Your task to perform on an android device: toggle notifications settings in the gmail app Image 0: 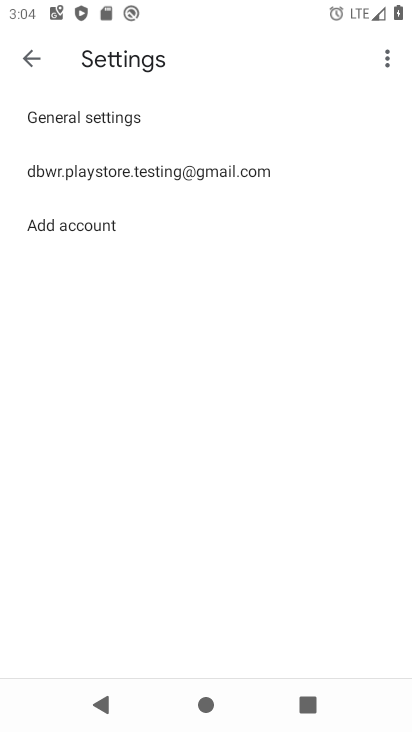
Step 0: press home button
Your task to perform on an android device: toggle notifications settings in the gmail app Image 1: 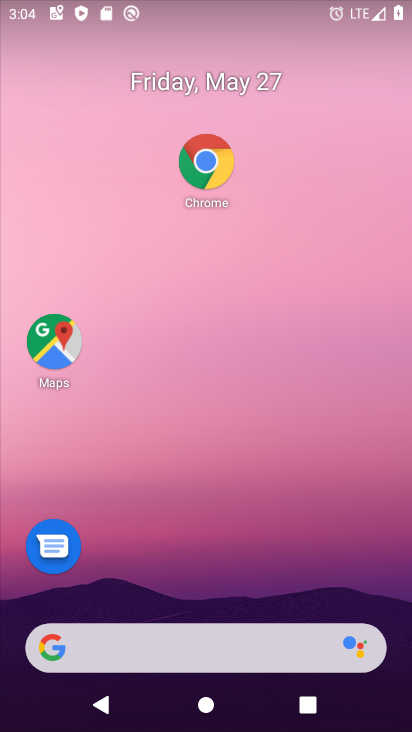
Step 1: drag from (162, 582) to (248, 148)
Your task to perform on an android device: toggle notifications settings in the gmail app Image 2: 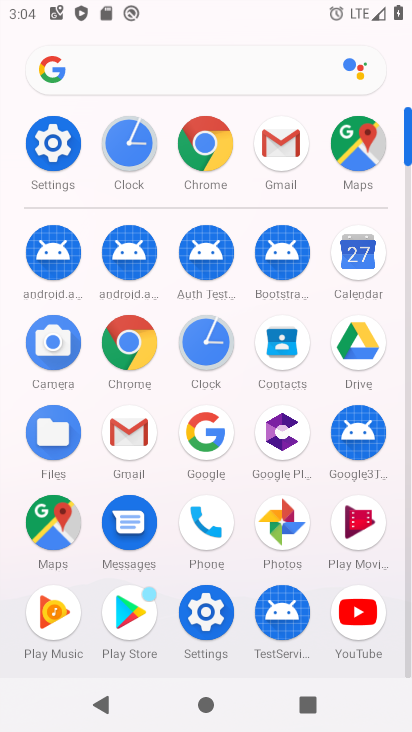
Step 2: click (274, 143)
Your task to perform on an android device: toggle notifications settings in the gmail app Image 3: 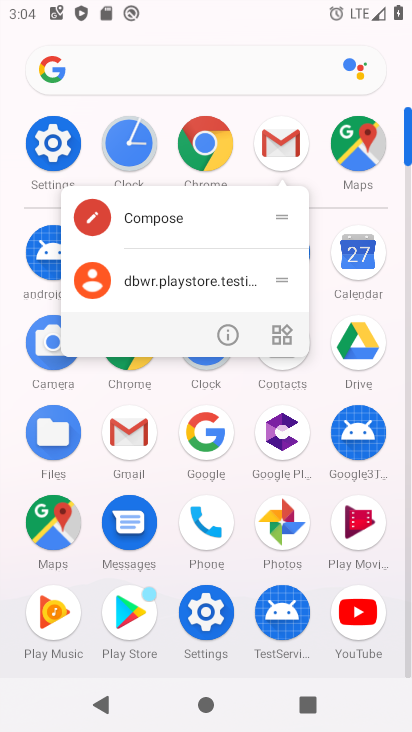
Step 3: click (281, 149)
Your task to perform on an android device: toggle notifications settings in the gmail app Image 4: 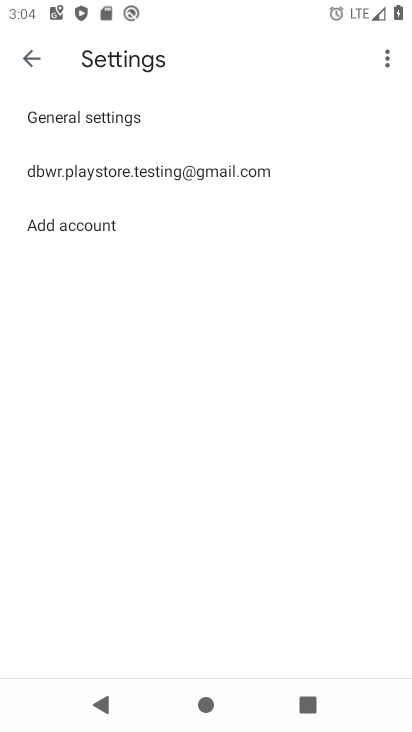
Step 4: click (143, 181)
Your task to perform on an android device: toggle notifications settings in the gmail app Image 5: 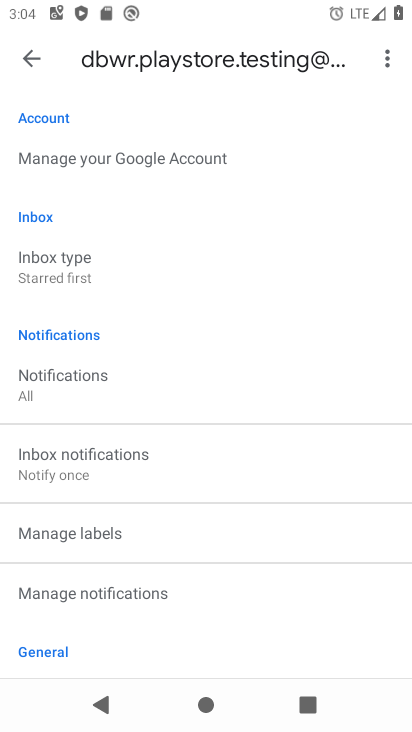
Step 5: click (96, 594)
Your task to perform on an android device: toggle notifications settings in the gmail app Image 6: 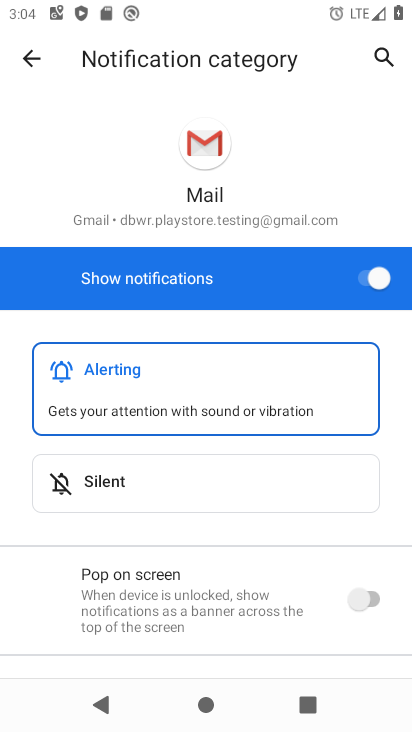
Step 6: click (374, 272)
Your task to perform on an android device: toggle notifications settings in the gmail app Image 7: 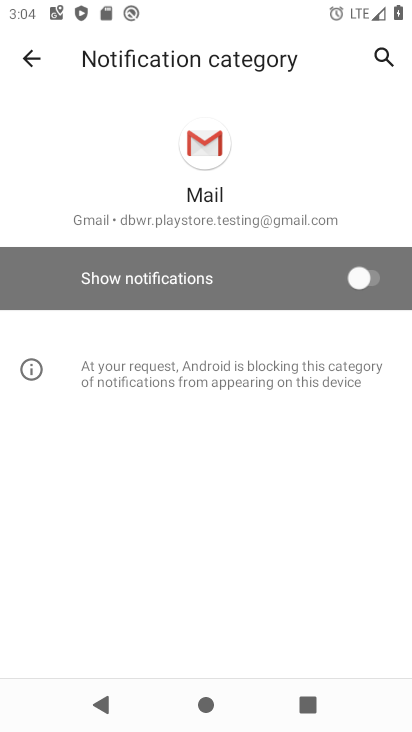
Step 7: task complete